Your task to perform on an android device: add a contact Image 0: 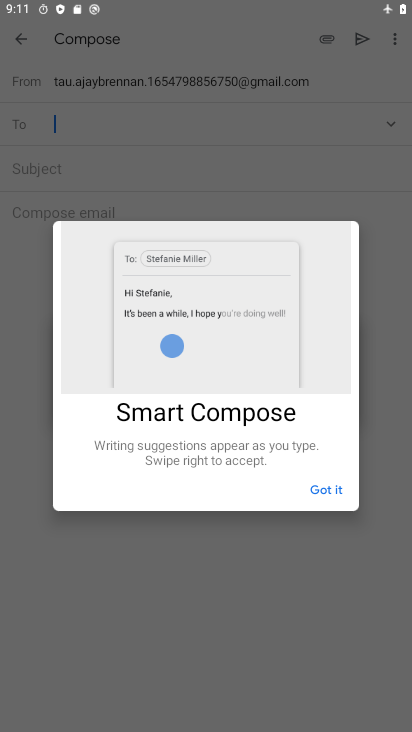
Step 0: press home button
Your task to perform on an android device: add a contact Image 1: 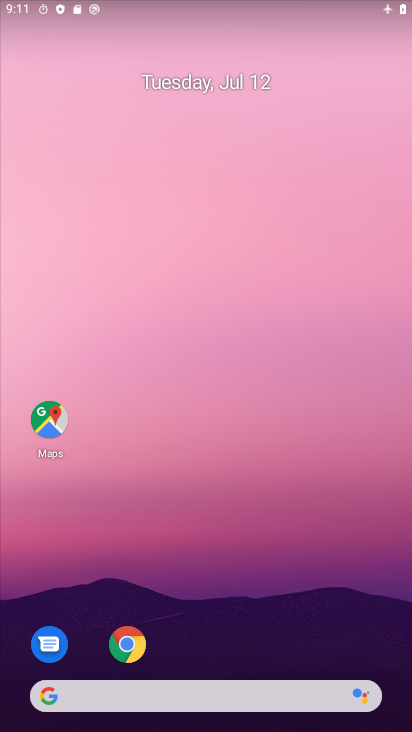
Step 1: drag from (209, 634) to (267, 160)
Your task to perform on an android device: add a contact Image 2: 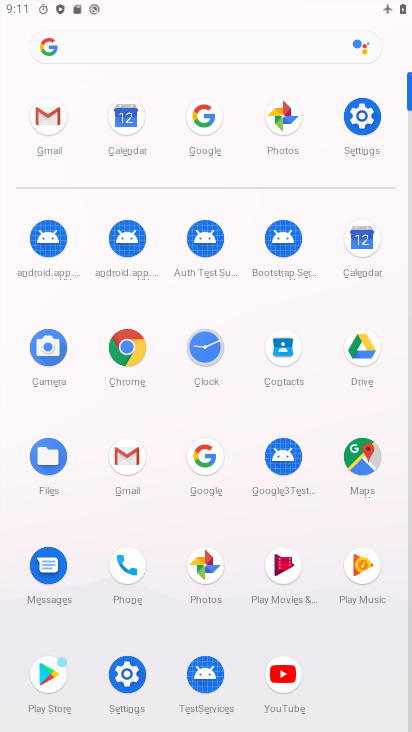
Step 2: click (289, 353)
Your task to perform on an android device: add a contact Image 3: 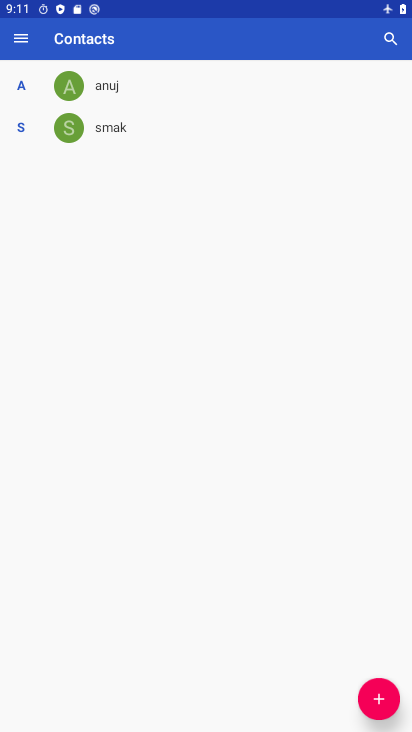
Step 3: click (379, 683)
Your task to perform on an android device: add a contact Image 4: 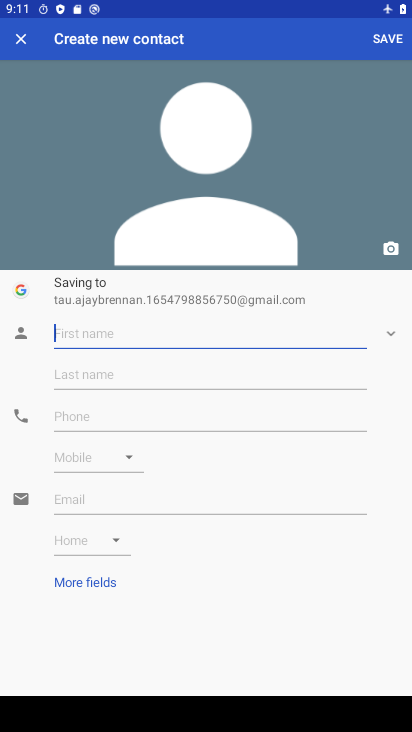
Step 4: type "vbfbgvn"
Your task to perform on an android device: add a contact Image 5: 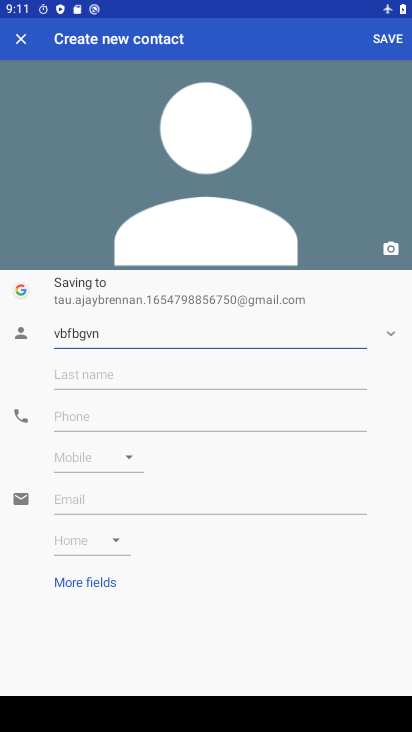
Step 5: click (196, 407)
Your task to perform on an android device: add a contact Image 6: 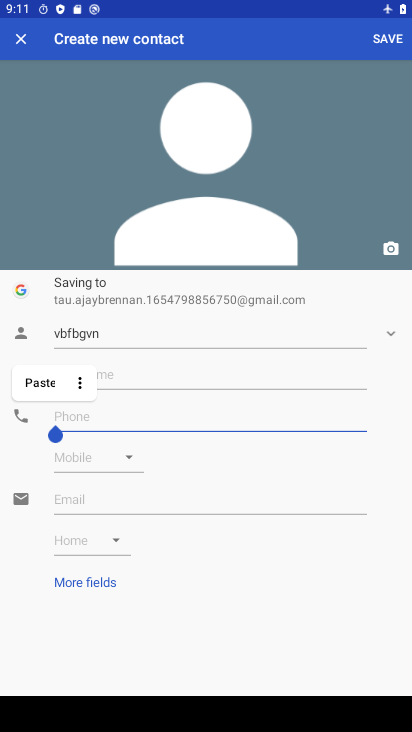
Step 6: type "79676575754"
Your task to perform on an android device: add a contact Image 7: 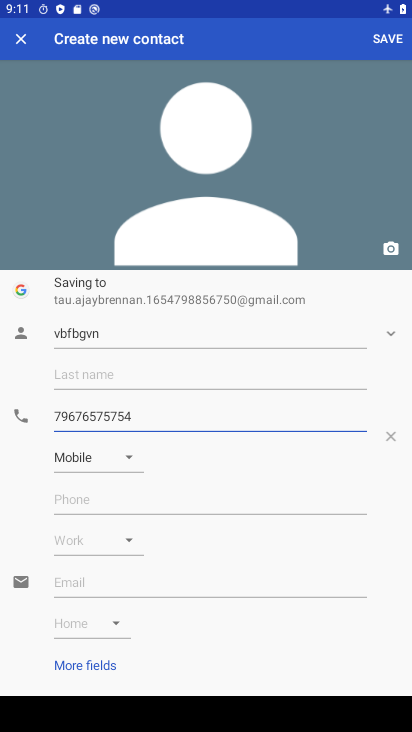
Step 7: click (390, 40)
Your task to perform on an android device: add a contact Image 8: 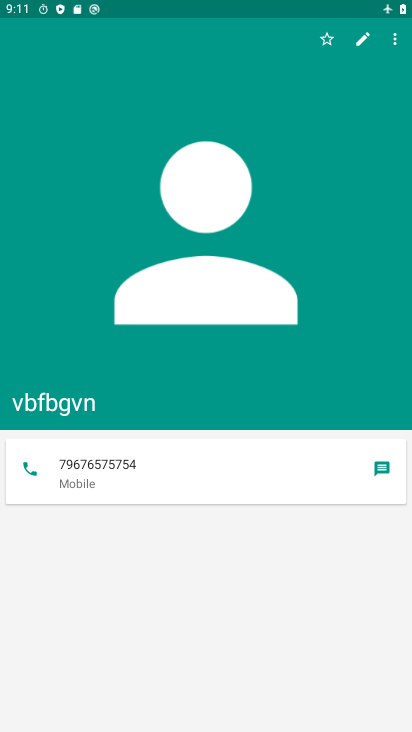
Step 8: task complete